Your task to perform on an android device: Go to Android settings Image 0: 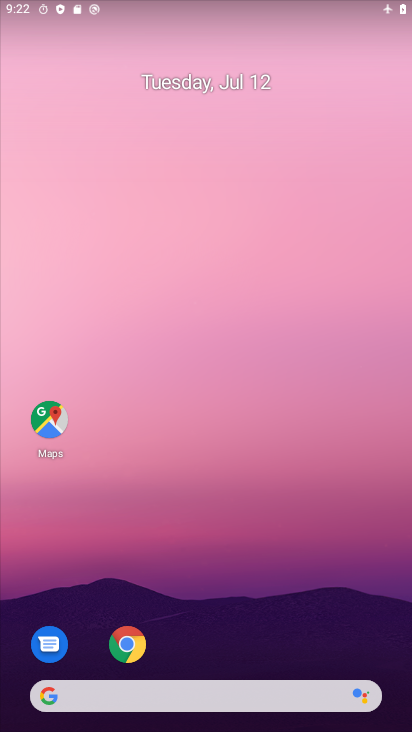
Step 0: drag from (223, 646) to (271, 240)
Your task to perform on an android device: Go to Android settings Image 1: 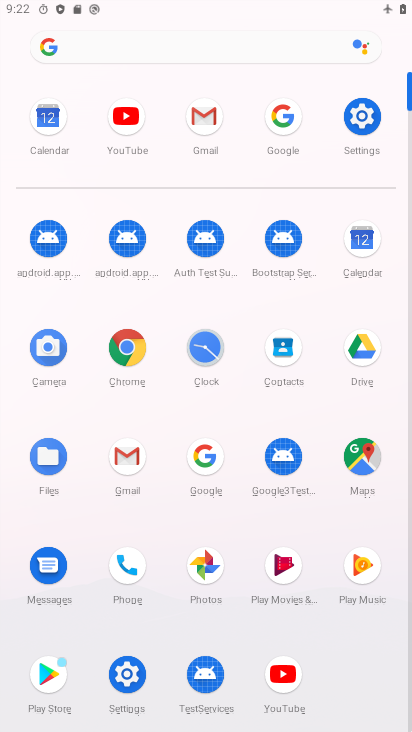
Step 1: click (348, 107)
Your task to perform on an android device: Go to Android settings Image 2: 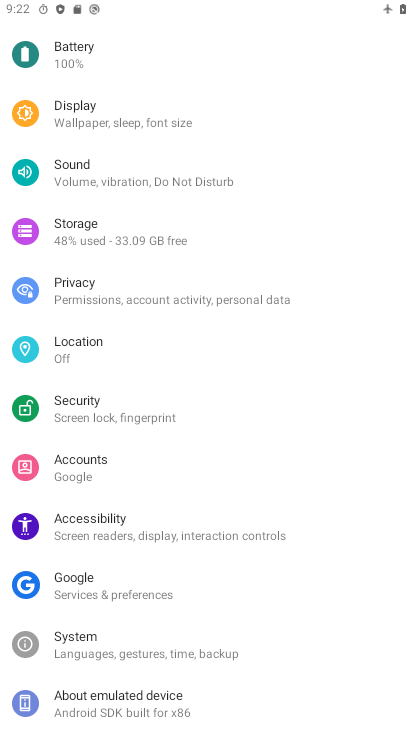
Step 2: task complete